Your task to perform on an android device: Go to sound settings Image 0: 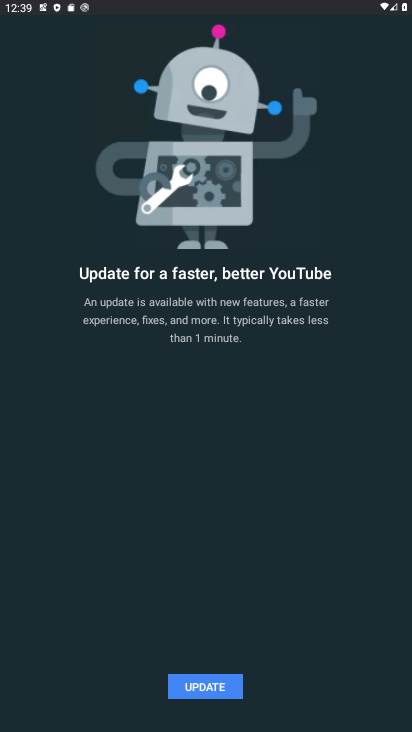
Step 0: press home button
Your task to perform on an android device: Go to sound settings Image 1: 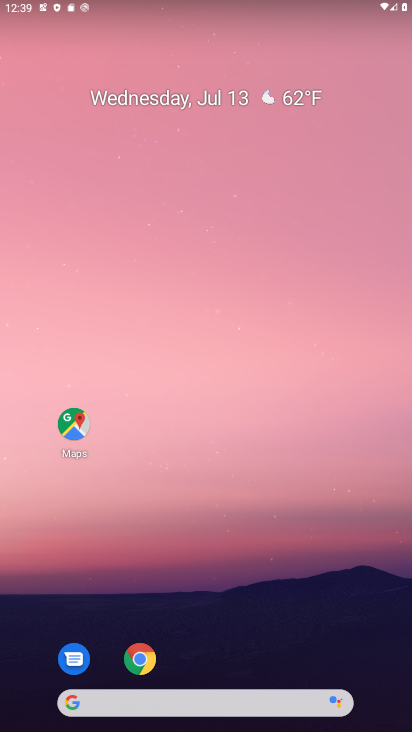
Step 1: drag from (237, 724) to (240, 106)
Your task to perform on an android device: Go to sound settings Image 2: 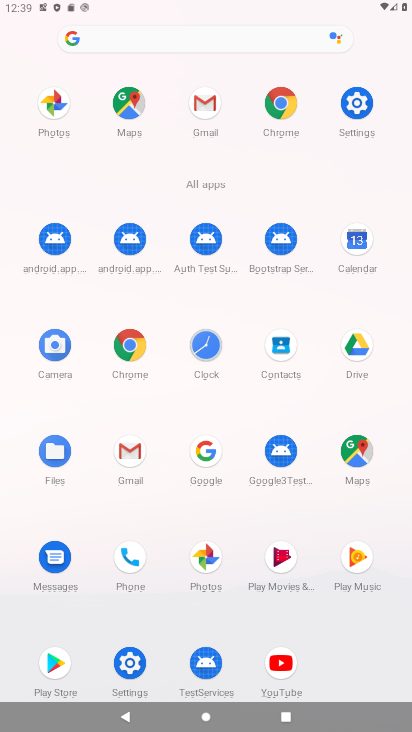
Step 2: click (360, 100)
Your task to perform on an android device: Go to sound settings Image 3: 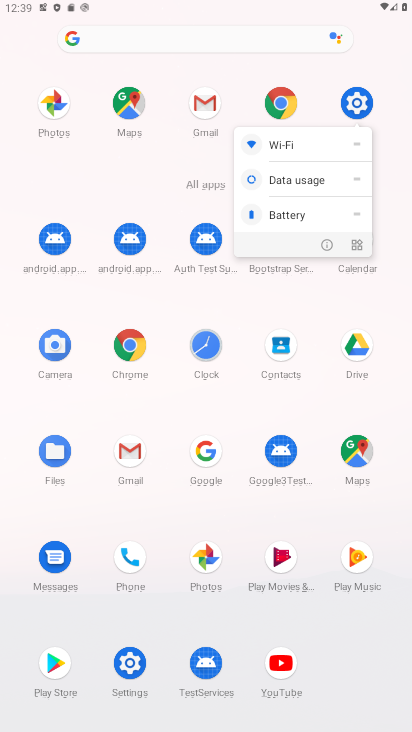
Step 3: click (133, 659)
Your task to perform on an android device: Go to sound settings Image 4: 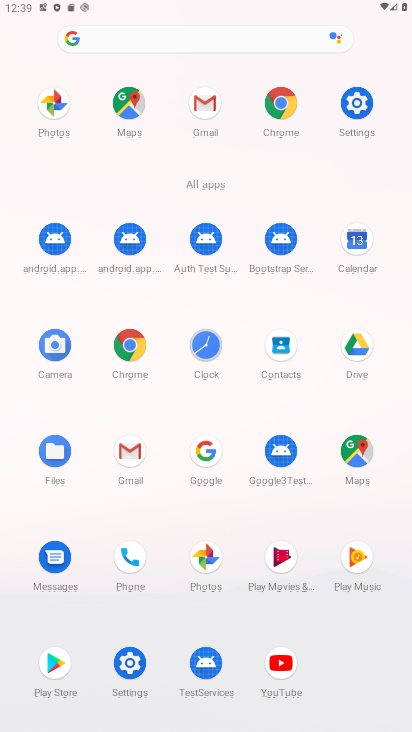
Step 4: click (129, 658)
Your task to perform on an android device: Go to sound settings Image 5: 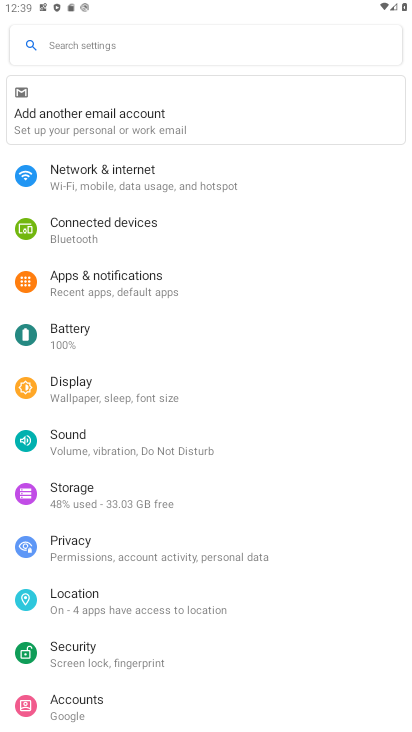
Step 5: click (71, 449)
Your task to perform on an android device: Go to sound settings Image 6: 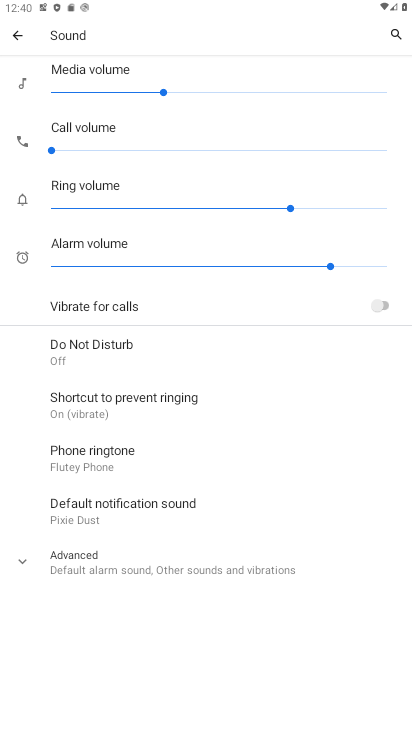
Step 6: task complete